Your task to perform on an android device: check android version Image 0: 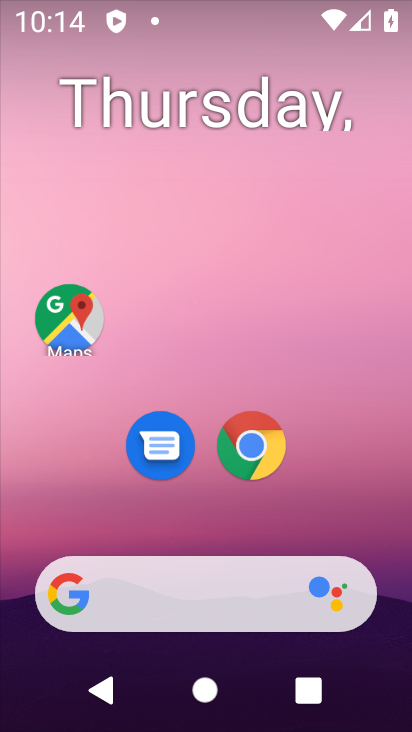
Step 0: drag from (223, 724) to (232, 152)
Your task to perform on an android device: check android version Image 1: 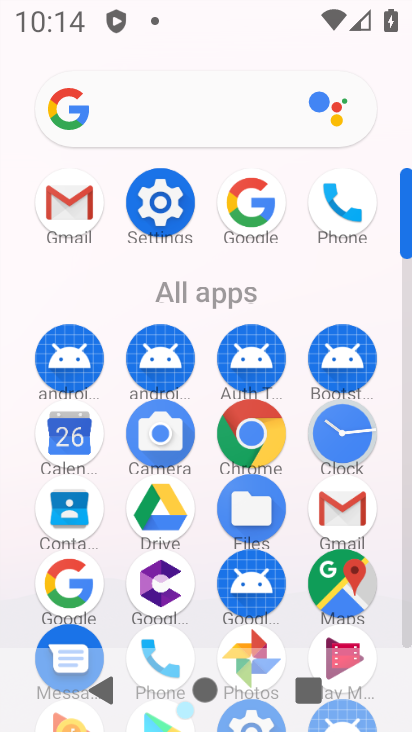
Step 1: click (160, 189)
Your task to perform on an android device: check android version Image 2: 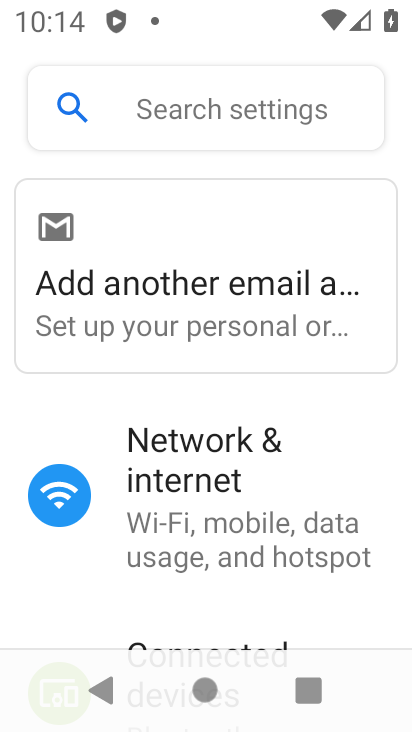
Step 2: drag from (348, 631) to (344, 115)
Your task to perform on an android device: check android version Image 3: 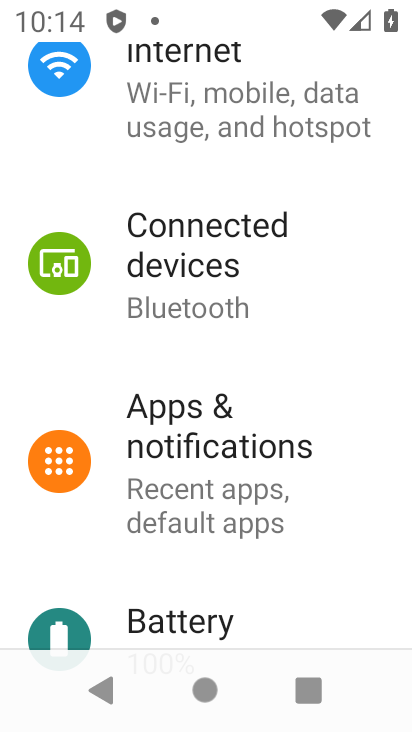
Step 3: drag from (329, 638) to (333, 60)
Your task to perform on an android device: check android version Image 4: 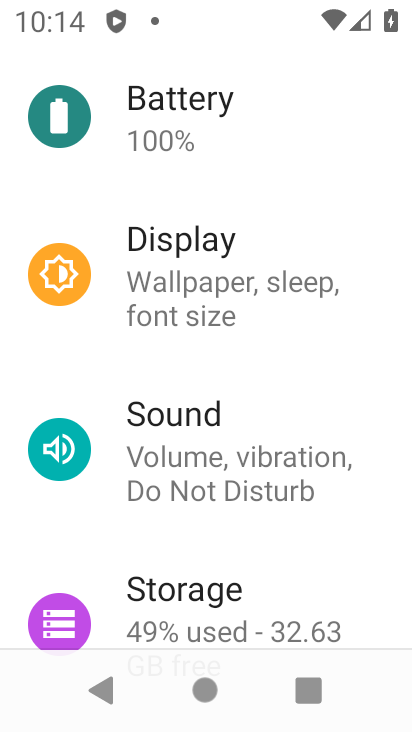
Step 4: drag from (359, 640) to (361, 131)
Your task to perform on an android device: check android version Image 5: 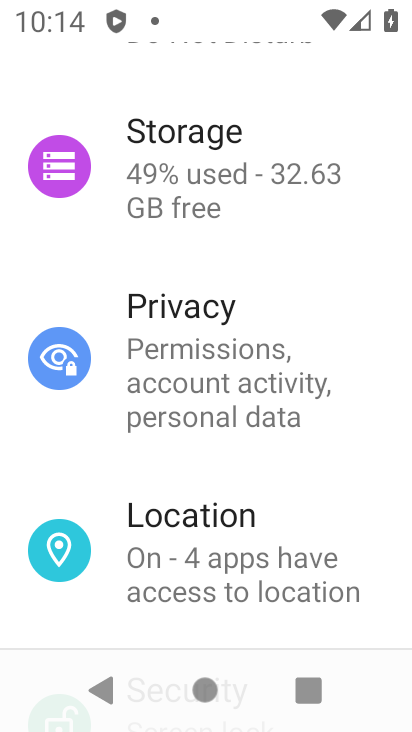
Step 5: drag from (356, 644) to (324, 102)
Your task to perform on an android device: check android version Image 6: 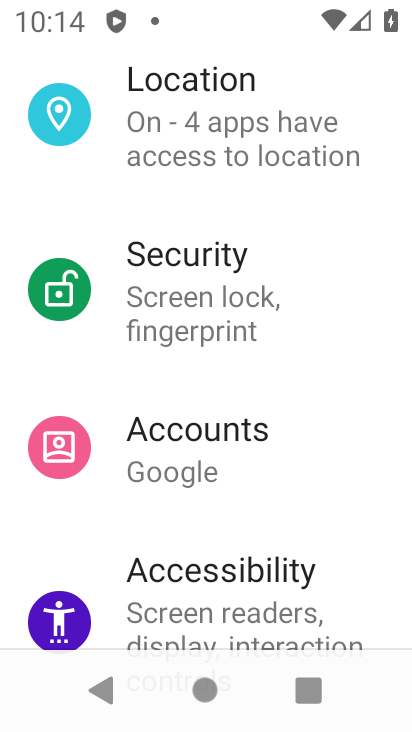
Step 6: drag from (368, 633) to (342, 102)
Your task to perform on an android device: check android version Image 7: 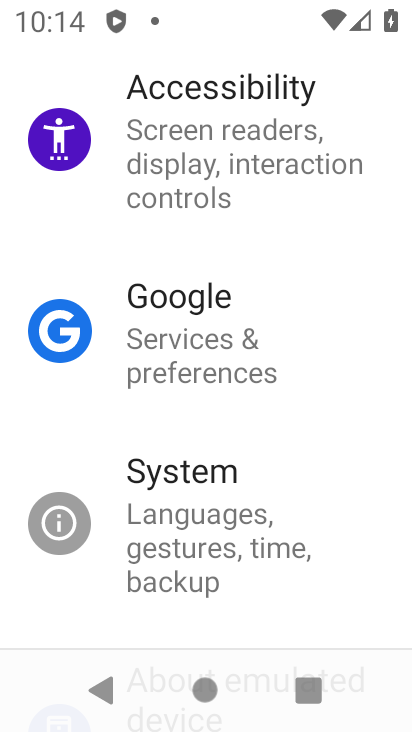
Step 7: drag from (359, 644) to (364, 176)
Your task to perform on an android device: check android version Image 8: 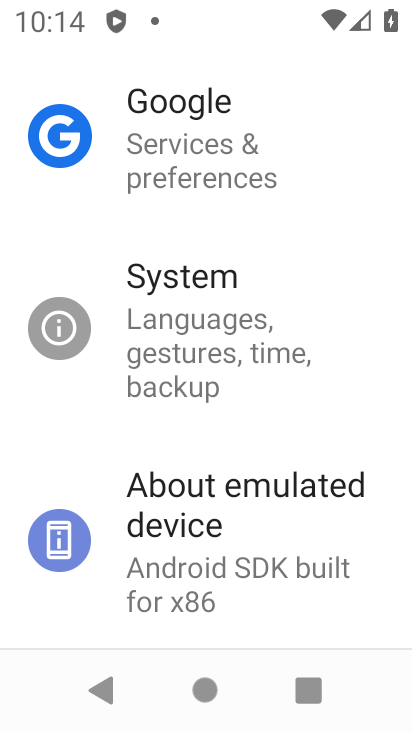
Step 8: click (159, 529)
Your task to perform on an android device: check android version Image 9: 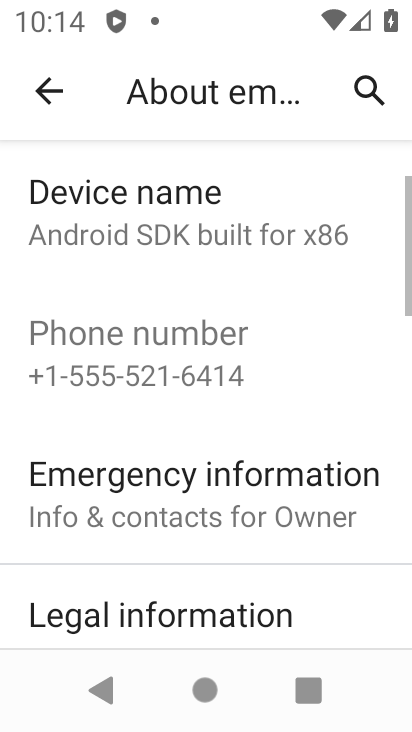
Step 9: drag from (333, 633) to (310, 219)
Your task to perform on an android device: check android version Image 10: 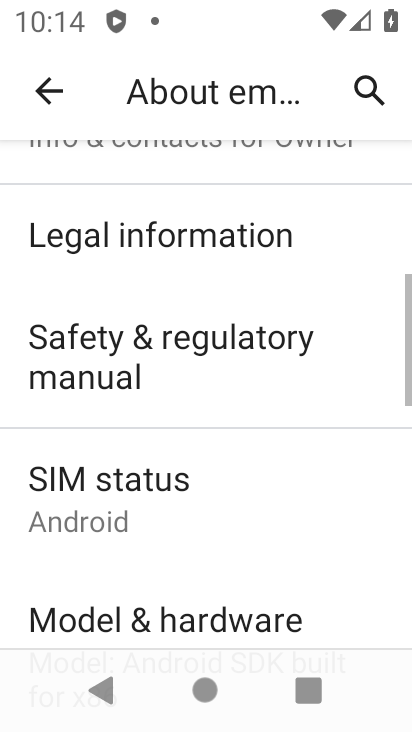
Step 10: drag from (348, 636) to (337, 223)
Your task to perform on an android device: check android version Image 11: 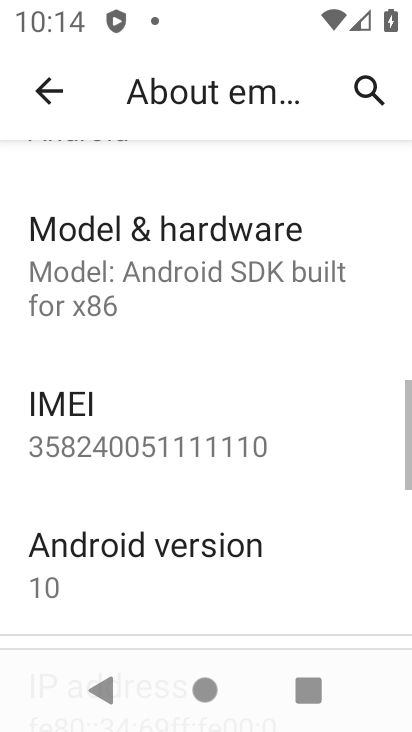
Step 11: click (148, 542)
Your task to perform on an android device: check android version Image 12: 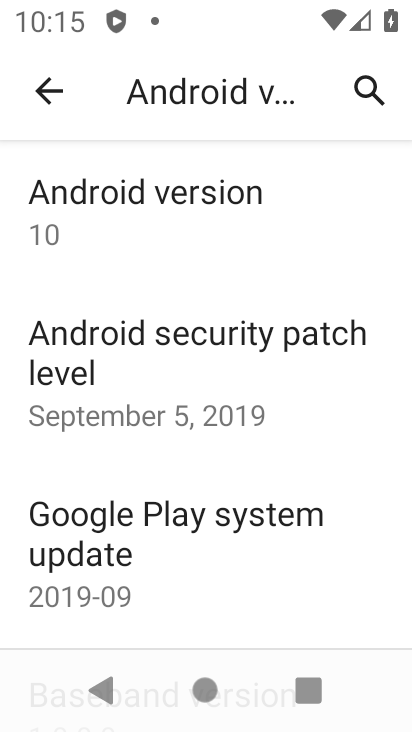
Step 12: task complete